Your task to perform on an android device: turn off picture-in-picture Image 0: 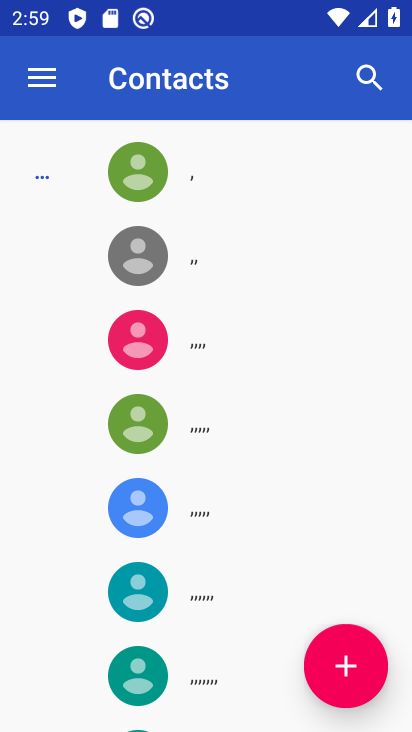
Step 0: press home button
Your task to perform on an android device: turn off picture-in-picture Image 1: 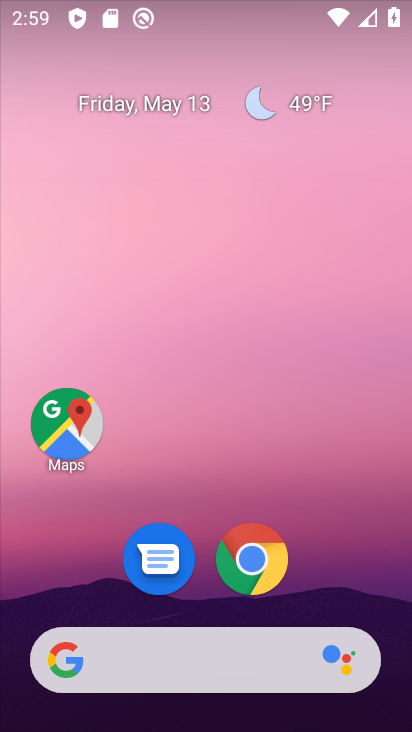
Step 1: drag from (397, 621) to (310, 123)
Your task to perform on an android device: turn off picture-in-picture Image 2: 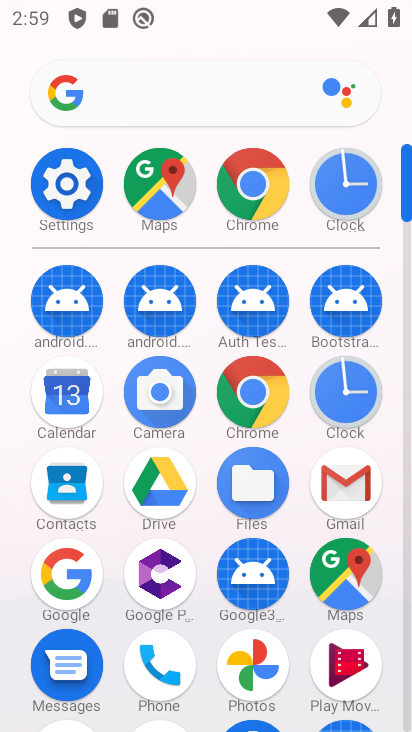
Step 2: click (409, 669)
Your task to perform on an android device: turn off picture-in-picture Image 3: 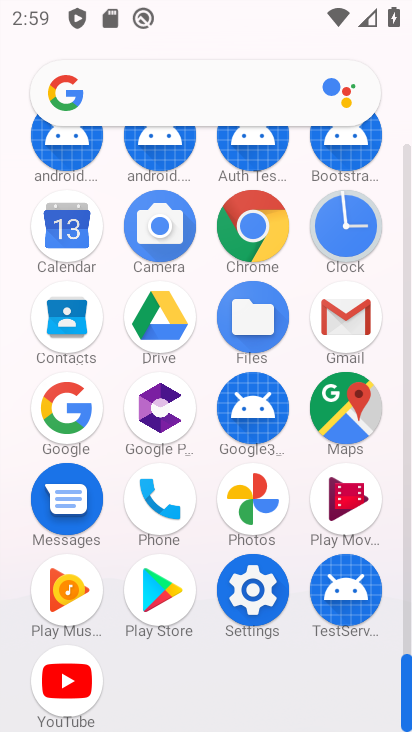
Step 3: click (254, 588)
Your task to perform on an android device: turn off picture-in-picture Image 4: 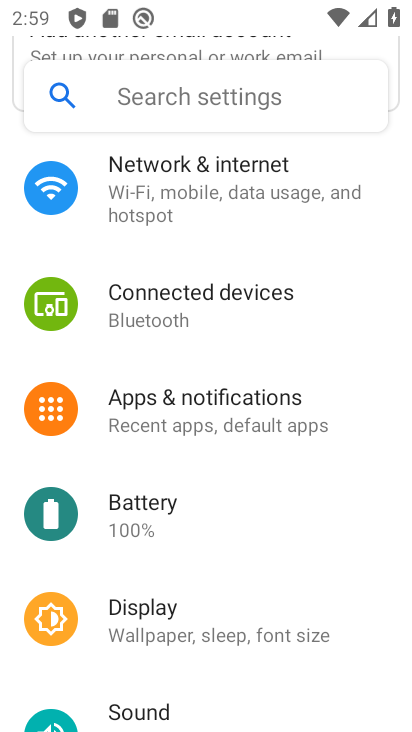
Step 4: click (232, 395)
Your task to perform on an android device: turn off picture-in-picture Image 5: 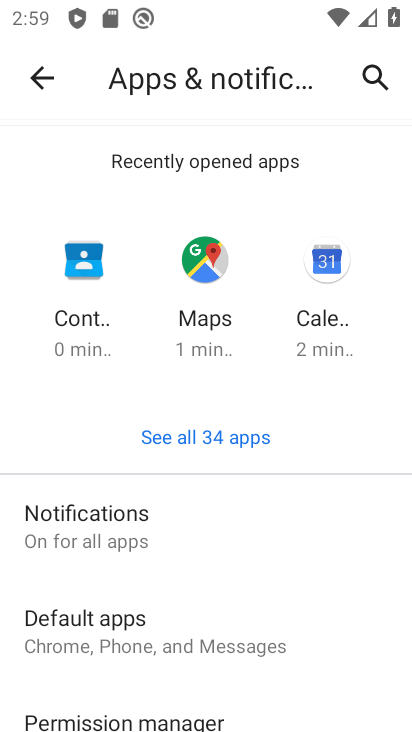
Step 5: drag from (221, 675) to (192, 417)
Your task to perform on an android device: turn off picture-in-picture Image 6: 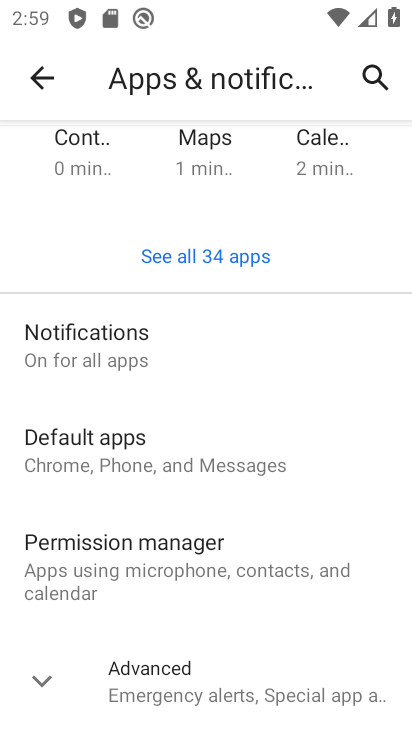
Step 6: click (45, 683)
Your task to perform on an android device: turn off picture-in-picture Image 7: 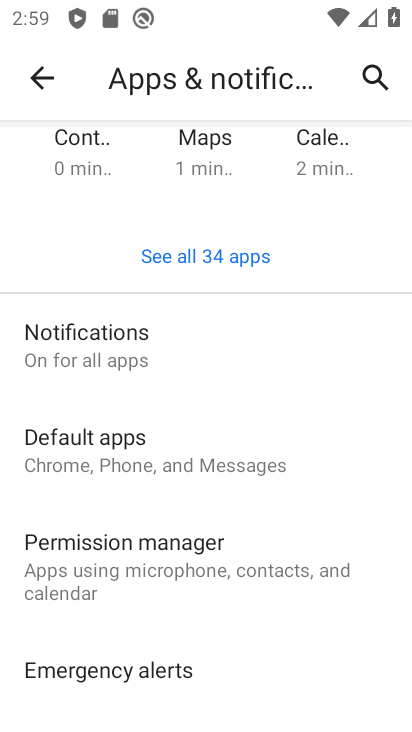
Step 7: drag from (269, 673) to (261, 272)
Your task to perform on an android device: turn off picture-in-picture Image 8: 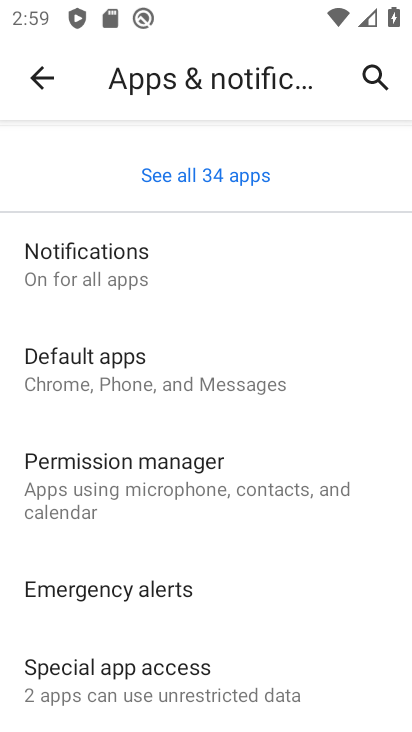
Step 8: click (121, 676)
Your task to perform on an android device: turn off picture-in-picture Image 9: 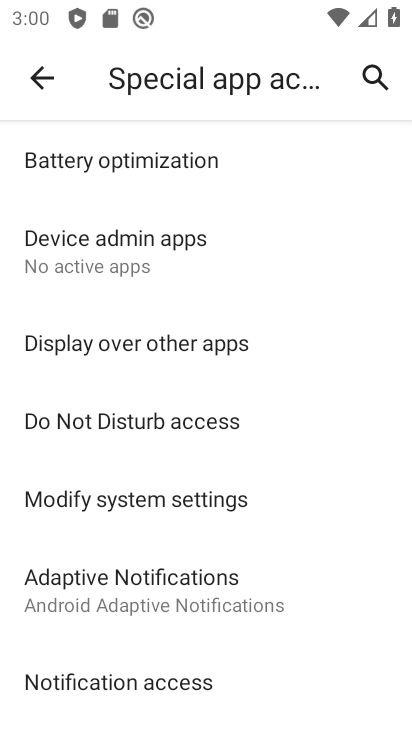
Step 9: drag from (162, 547) to (187, 256)
Your task to perform on an android device: turn off picture-in-picture Image 10: 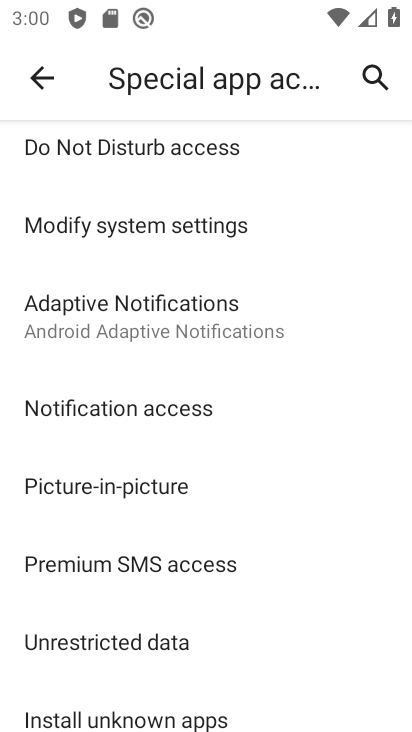
Step 10: click (101, 486)
Your task to perform on an android device: turn off picture-in-picture Image 11: 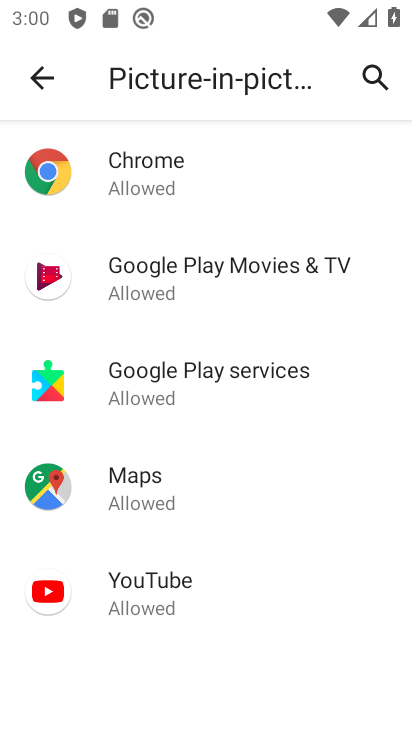
Step 11: click (150, 586)
Your task to perform on an android device: turn off picture-in-picture Image 12: 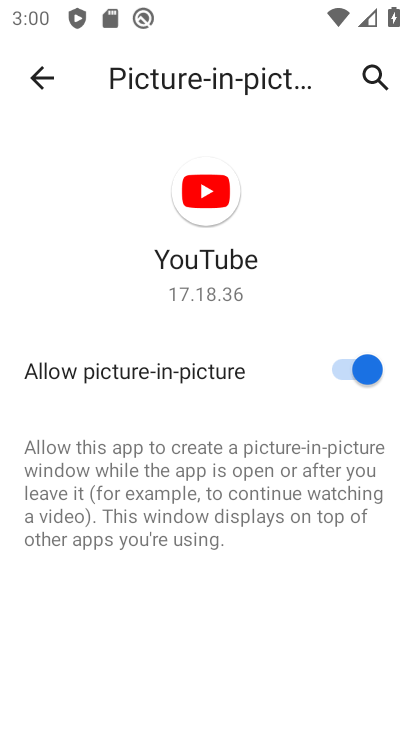
Step 12: click (339, 360)
Your task to perform on an android device: turn off picture-in-picture Image 13: 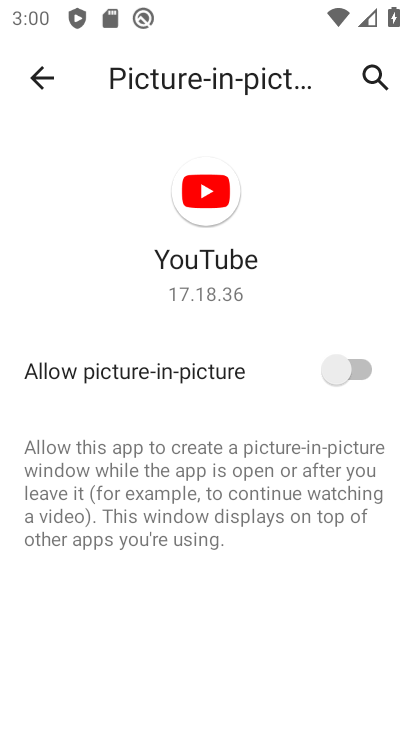
Step 13: task complete